Your task to perform on an android device: Go to accessibility settings Image 0: 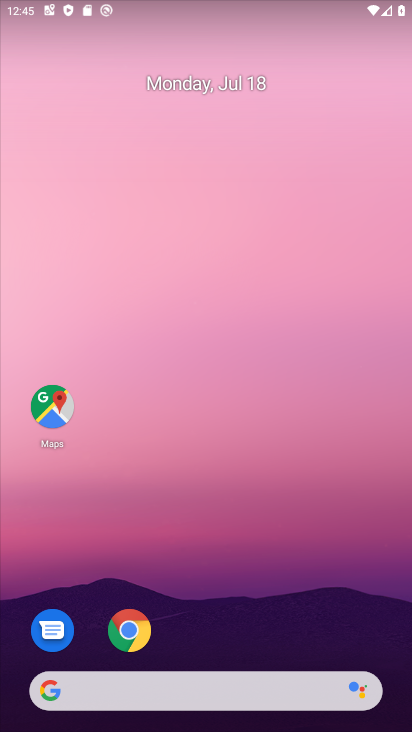
Step 0: drag from (347, 637) to (410, 51)
Your task to perform on an android device: Go to accessibility settings Image 1: 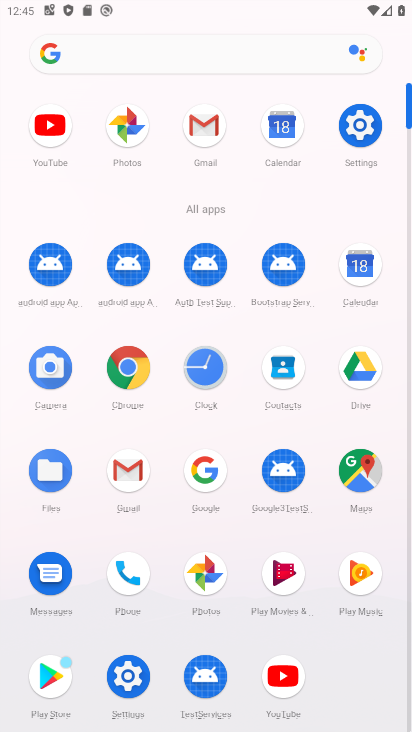
Step 1: click (370, 134)
Your task to perform on an android device: Go to accessibility settings Image 2: 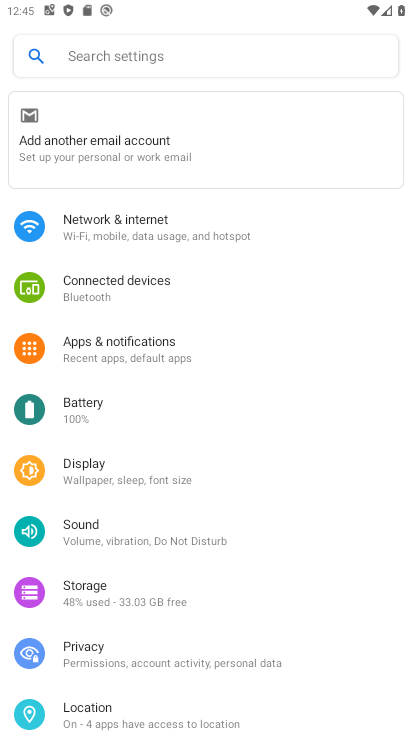
Step 2: drag from (213, 690) to (178, 256)
Your task to perform on an android device: Go to accessibility settings Image 3: 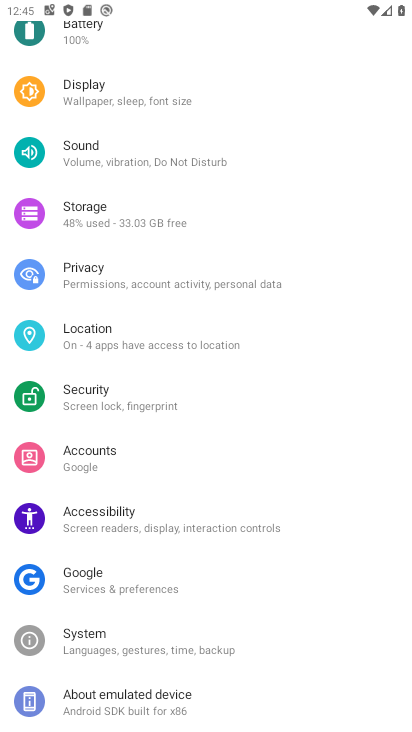
Step 3: click (176, 527)
Your task to perform on an android device: Go to accessibility settings Image 4: 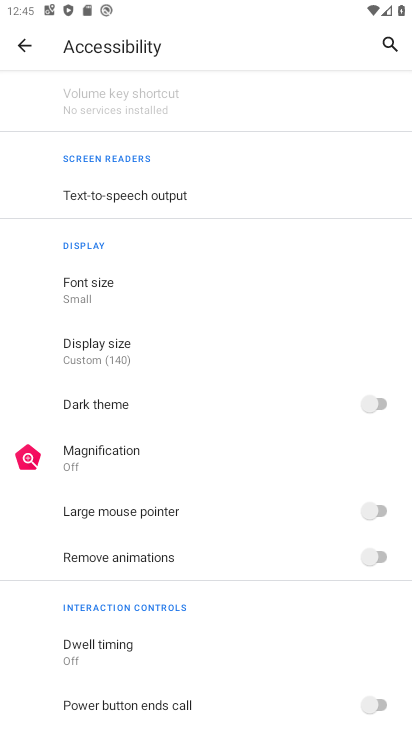
Step 4: task complete